Your task to perform on an android device: toggle notification dots Image 0: 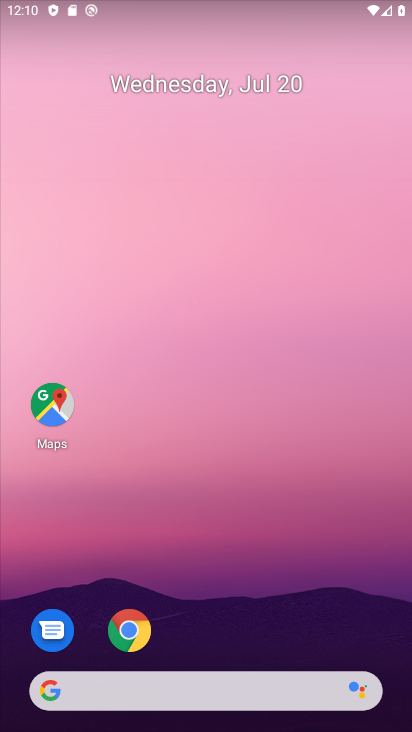
Step 0: drag from (245, 584) to (206, 197)
Your task to perform on an android device: toggle notification dots Image 1: 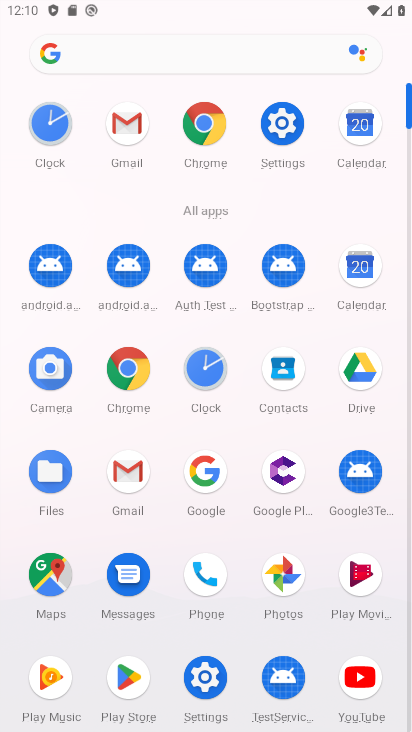
Step 1: click (294, 120)
Your task to perform on an android device: toggle notification dots Image 2: 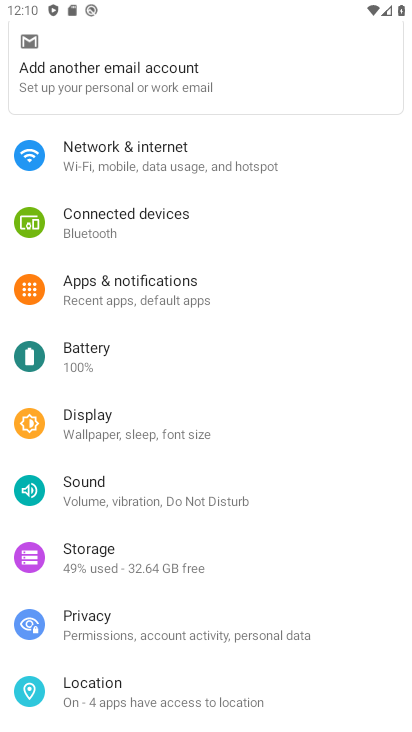
Step 2: click (161, 276)
Your task to perform on an android device: toggle notification dots Image 3: 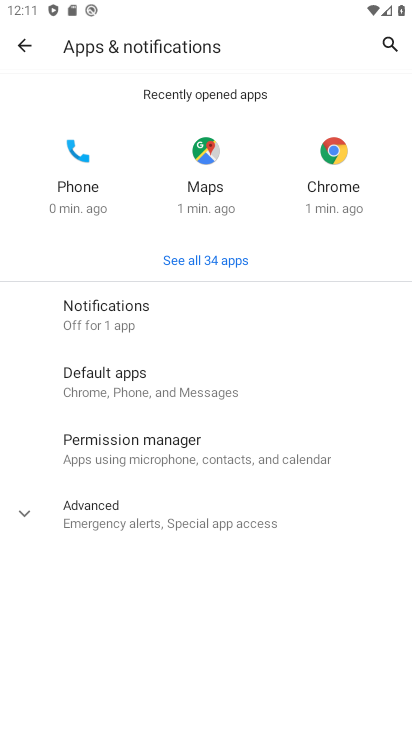
Step 3: click (95, 307)
Your task to perform on an android device: toggle notification dots Image 4: 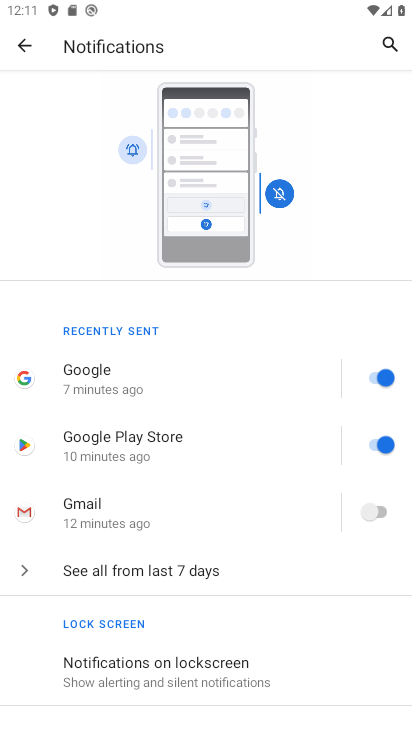
Step 4: drag from (341, 646) to (307, 309)
Your task to perform on an android device: toggle notification dots Image 5: 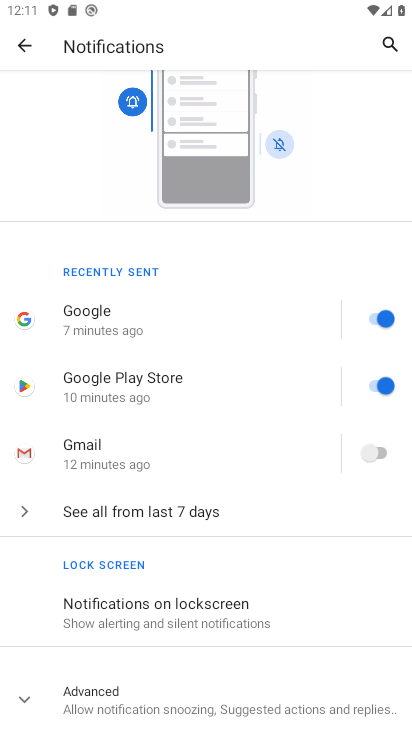
Step 5: click (30, 695)
Your task to perform on an android device: toggle notification dots Image 6: 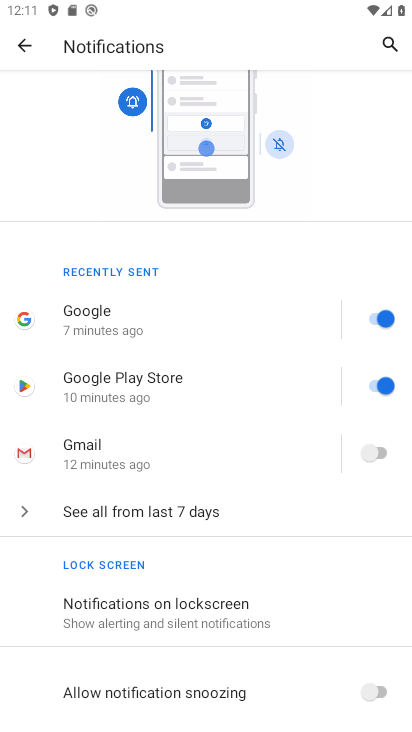
Step 6: drag from (201, 669) to (197, 434)
Your task to perform on an android device: toggle notification dots Image 7: 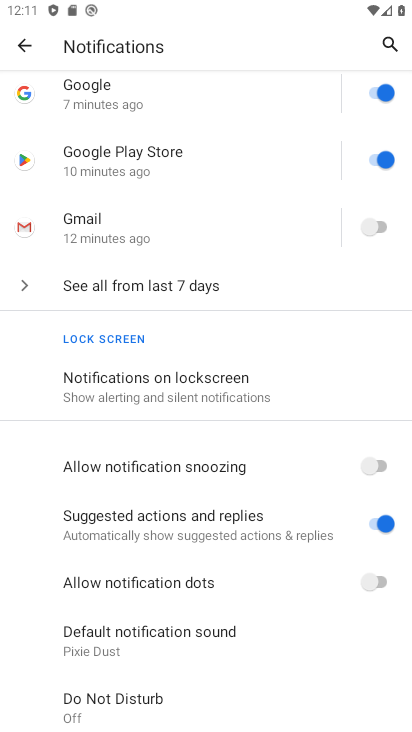
Step 7: click (379, 588)
Your task to perform on an android device: toggle notification dots Image 8: 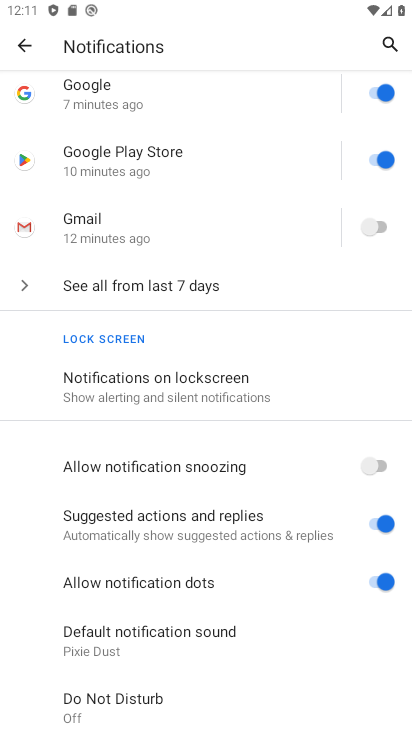
Step 8: task complete